Your task to perform on an android device: Open accessibility settings Image 0: 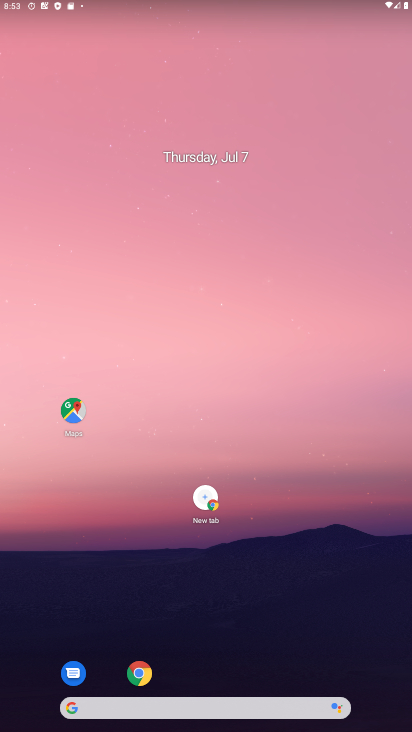
Step 0: press home button
Your task to perform on an android device: Open accessibility settings Image 1: 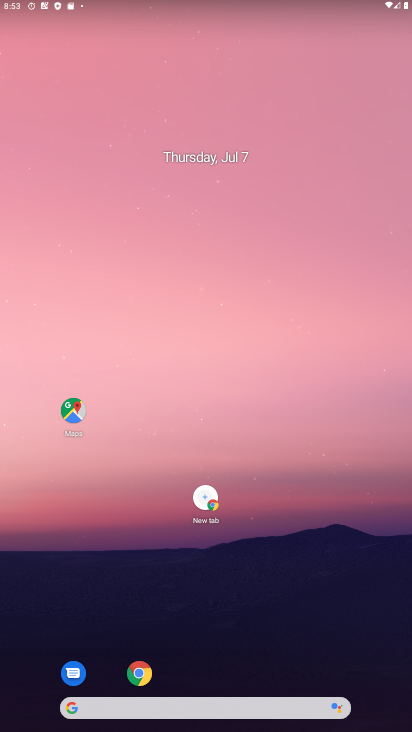
Step 1: drag from (273, 626) to (281, 24)
Your task to perform on an android device: Open accessibility settings Image 2: 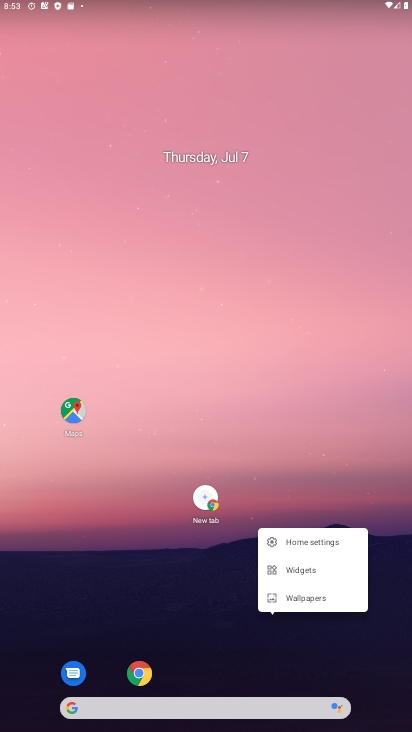
Step 2: drag from (240, 634) to (207, 90)
Your task to perform on an android device: Open accessibility settings Image 3: 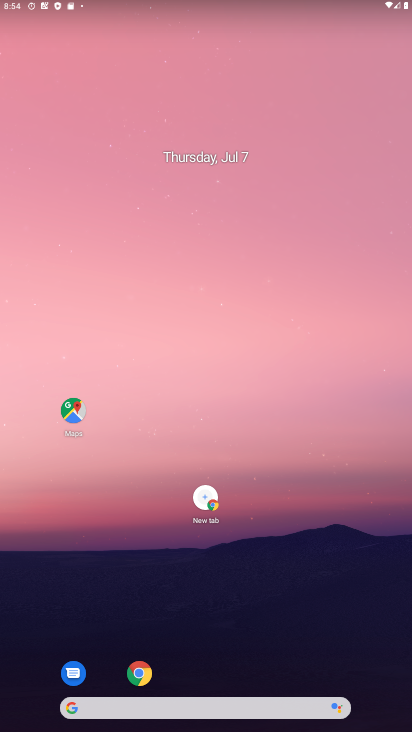
Step 3: drag from (309, 631) to (264, 11)
Your task to perform on an android device: Open accessibility settings Image 4: 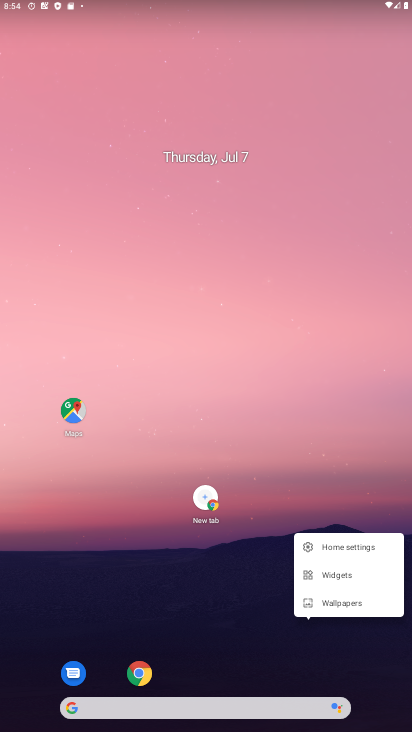
Step 4: click (263, 599)
Your task to perform on an android device: Open accessibility settings Image 5: 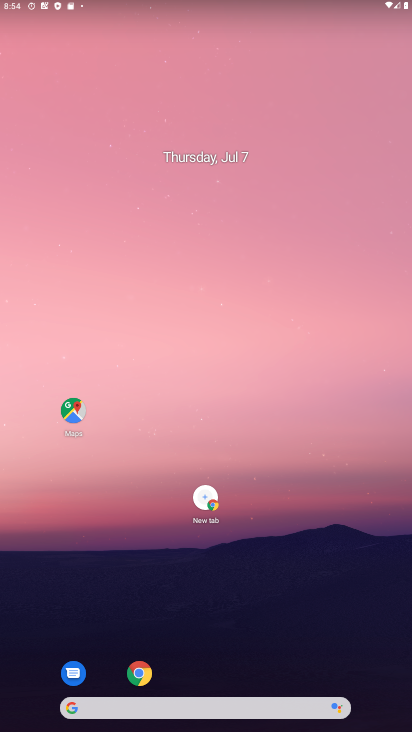
Step 5: drag from (225, 633) to (239, 15)
Your task to perform on an android device: Open accessibility settings Image 6: 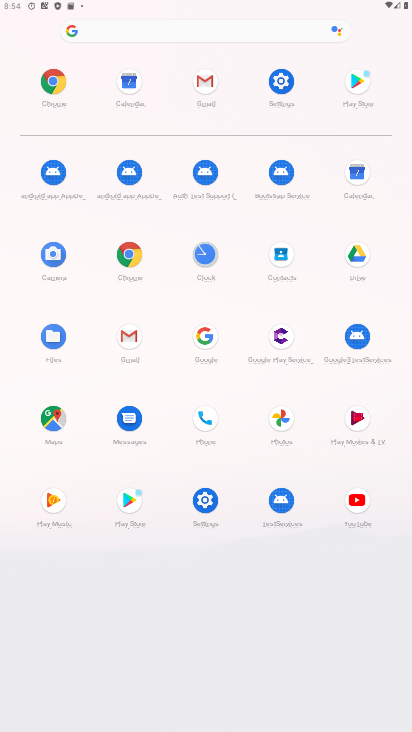
Step 6: click (286, 87)
Your task to perform on an android device: Open accessibility settings Image 7: 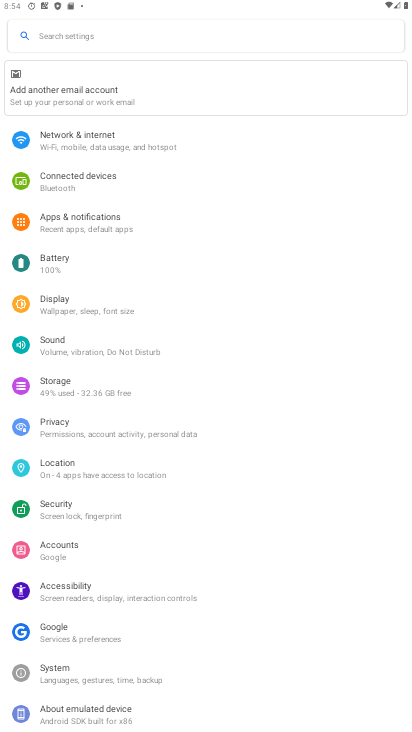
Step 7: click (73, 587)
Your task to perform on an android device: Open accessibility settings Image 8: 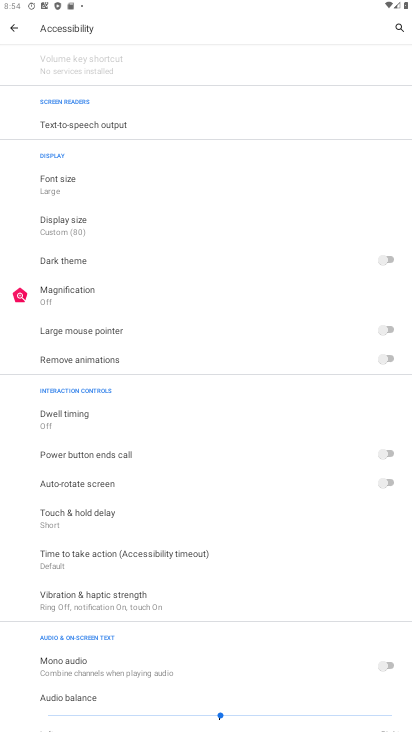
Step 8: task complete